Your task to perform on an android device: Show me recent news Image 0: 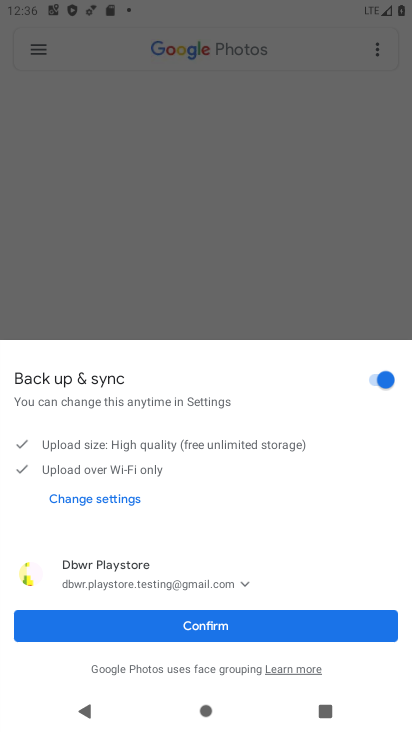
Step 0: press home button
Your task to perform on an android device: Show me recent news Image 1: 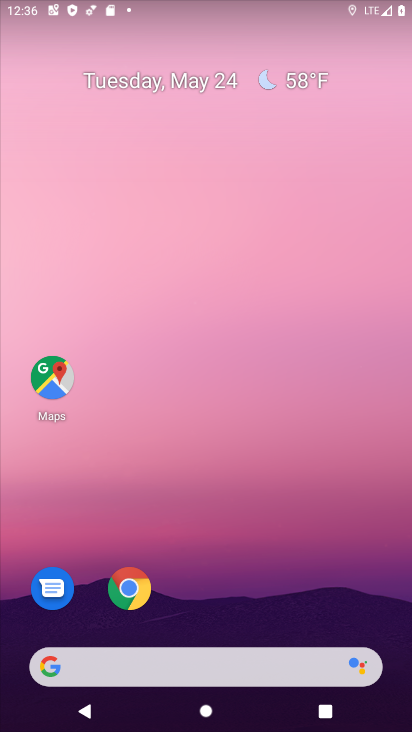
Step 1: drag from (205, 319) to (202, 121)
Your task to perform on an android device: Show me recent news Image 2: 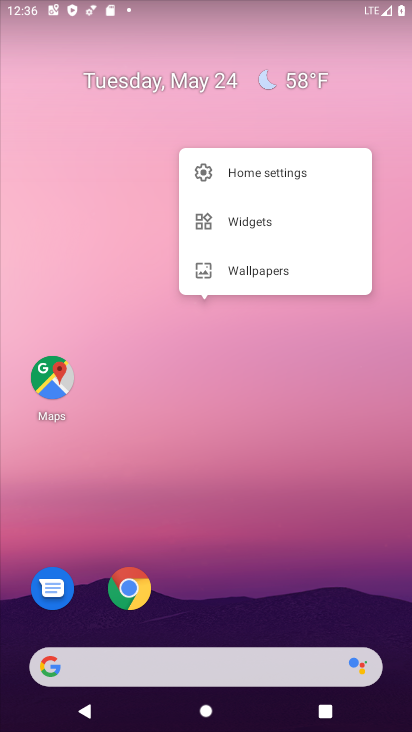
Step 2: click (179, 504)
Your task to perform on an android device: Show me recent news Image 3: 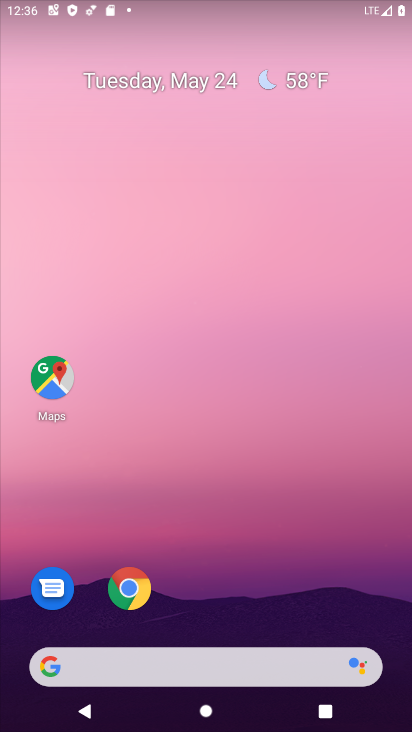
Step 3: drag from (205, 556) to (239, 121)
Your task to perform on an android device: Show me recent news Image 4: 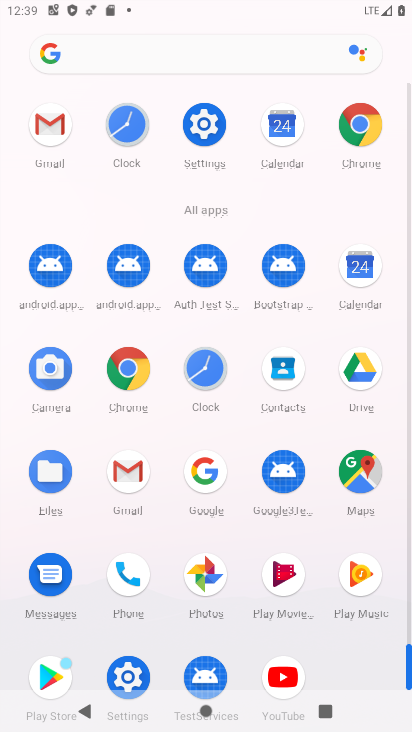
Step 4: click (209, 504)
Your task to perform on an android device: Show me recent news Image 5: 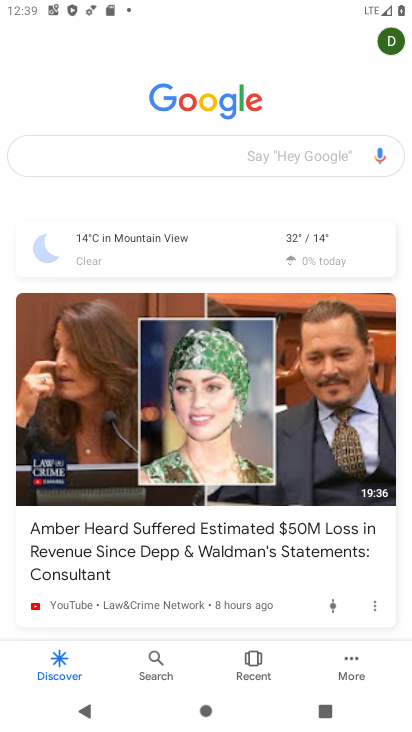
Step 5: click (208, 166)
Your task to perform on an android device: Show me recent news Image 6: 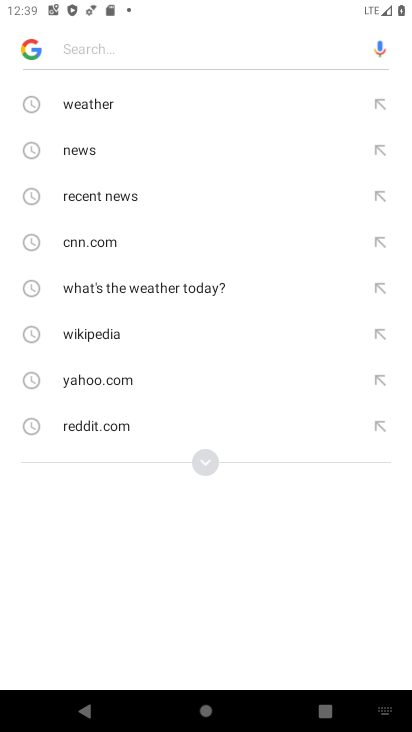
Step 6: click (98, 203)
Your task to perform on an android device: Show me recent news Image 7: 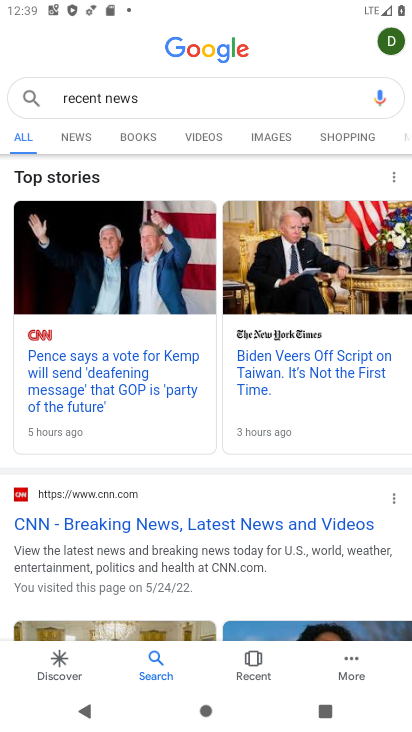
Step 7: task complete